Your task to perform on an android device: Open settings on Google Maps Image 0: 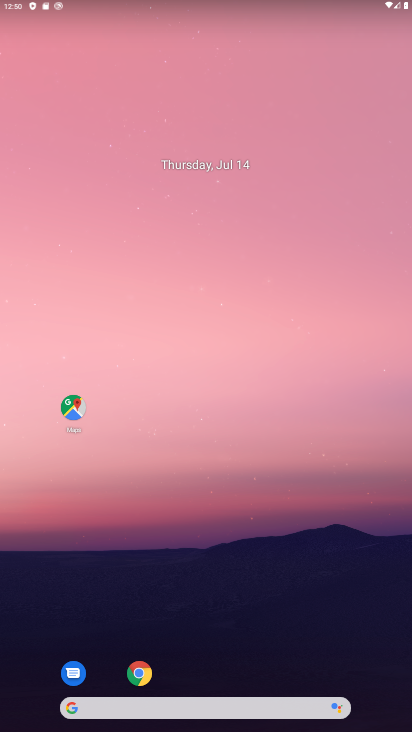
Step 0: click (74, 409)
Your task to perform on an android device: Open settings on Google Maps Image 1: 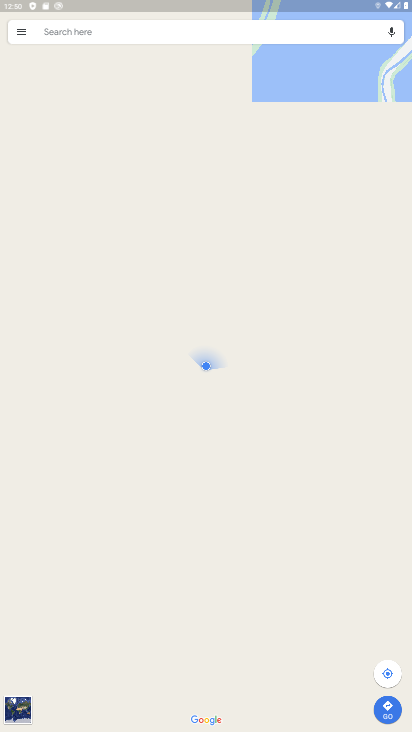
Step 1: click (20, 38)
Your task to perform on an android device: Open settings on Google Maps Image 2: 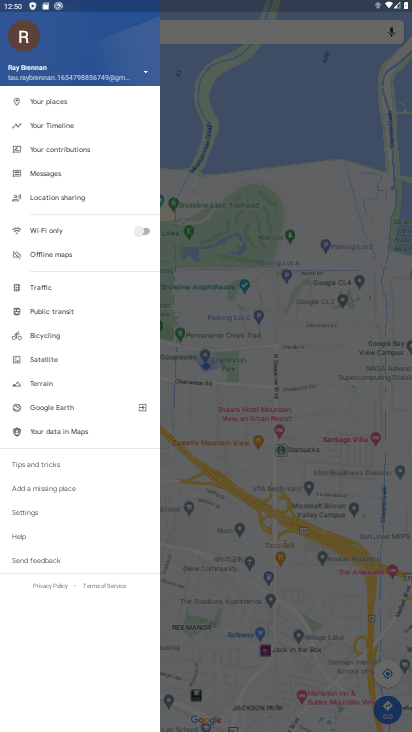
Step 2: click (37, 518)
Your task to perform on an android device: Open settings on Google Maps Image 3: 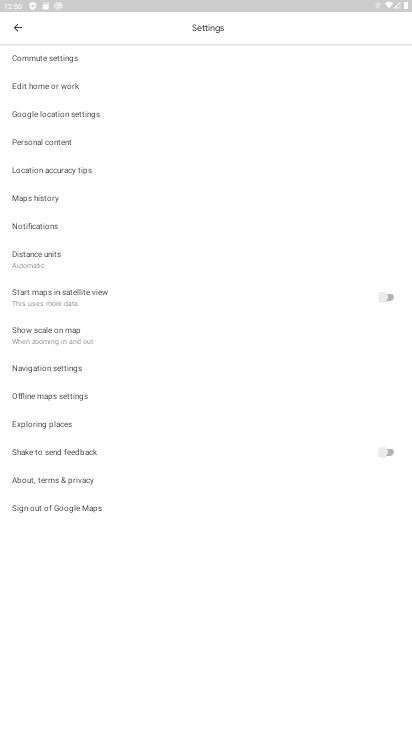
Step 3: task complete